Your task to perform on an android device: set an alarm Image 0: 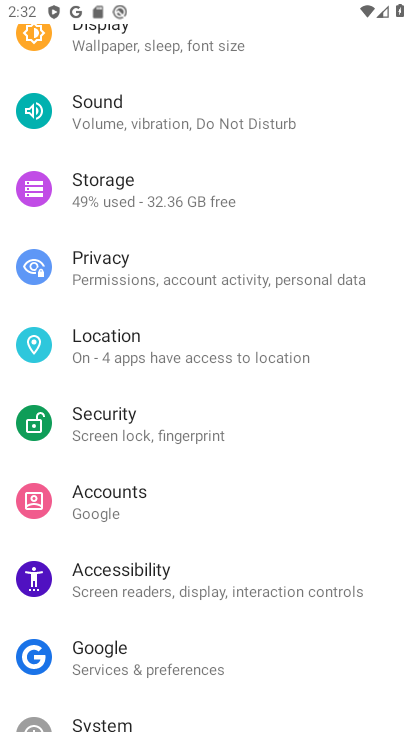
Step 0: press home button
Your task to perform on an android device: set an alarm Image 1: 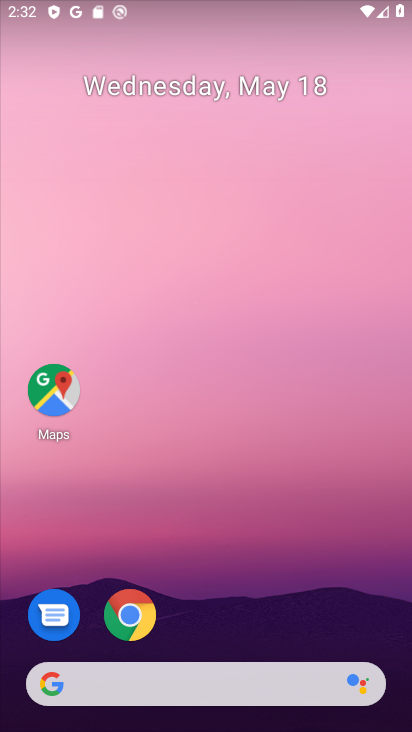
Step 1: drag from (211, 644) to (200, 236)
Your task to perform on an android device: set an alarm Image 2: 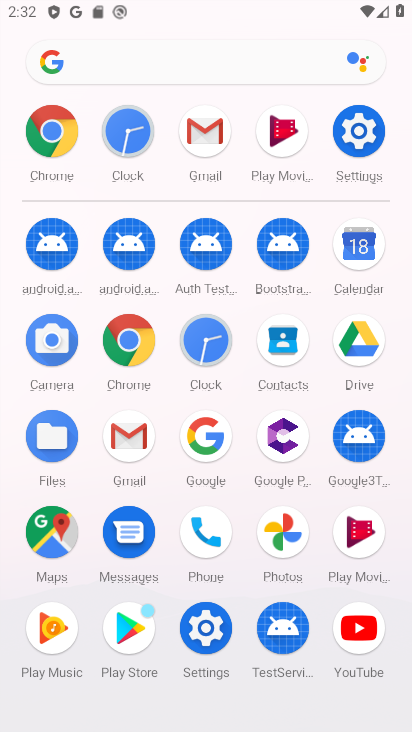
Step 2: click (199, 347)
Your task to perform on an android device: set an alarm Image 3: 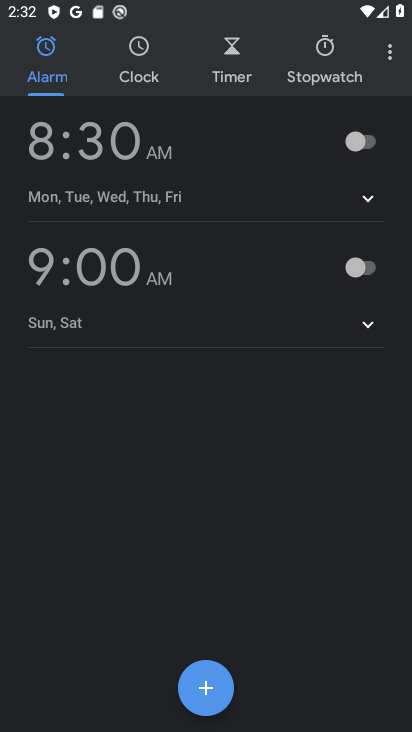
Step 3: click (355, 148)
Your task to perform on an android device: set an alarm Image 4: 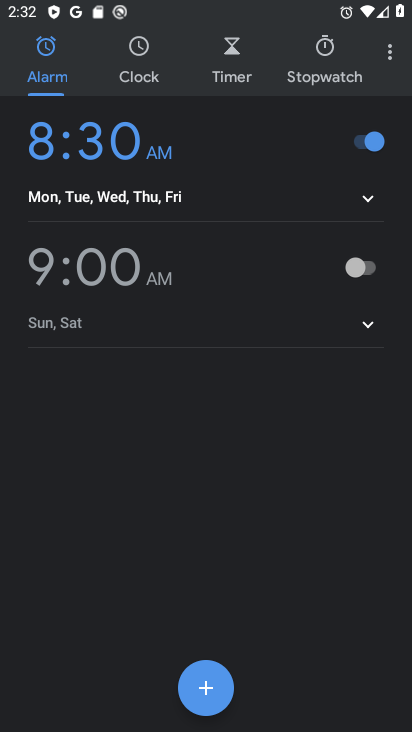
Step 4: task complete